Your task to perform on an android device: read, delete, or share a saved page in the chrome app Image 0: 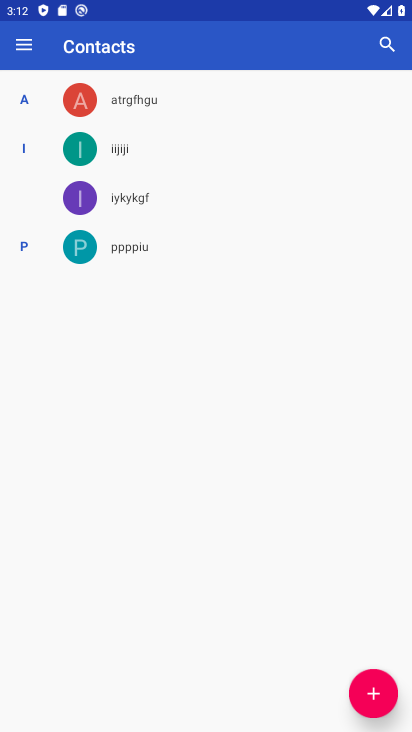
Step 0: press home button
Your task to perform on an android device: read, delete, or share a saved page in the chrome app Image 1: 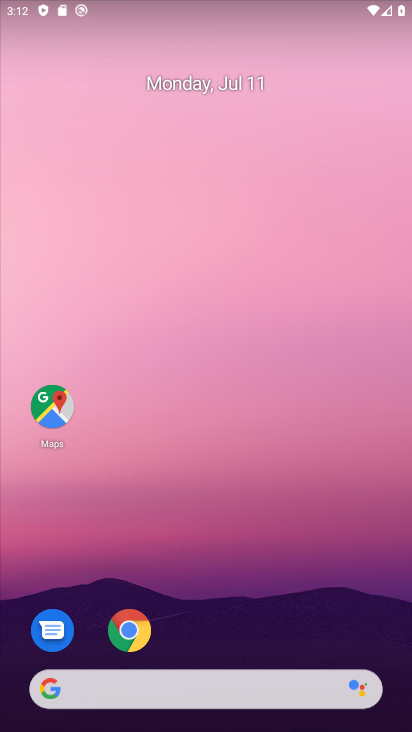
Step 1: drag from (235, 662) to (297, 6)
Your task to perform on an android device: read, delete, or share a saved page in the chrome app Image 2: 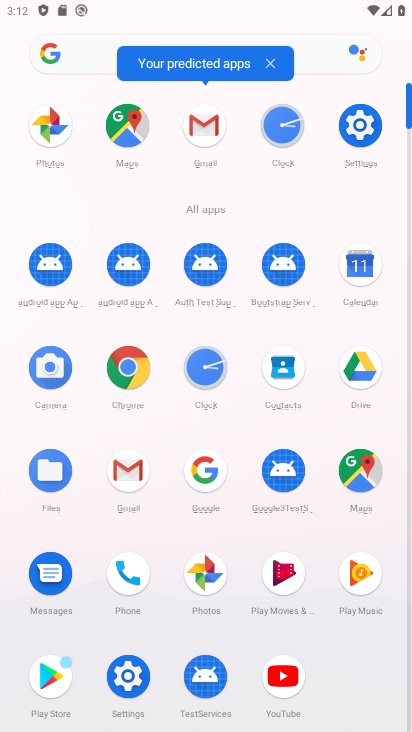
Step 2: click (120, 361)
Your task to perform on an android device: read, delete, or share a saved page in the chrome app Image 3: 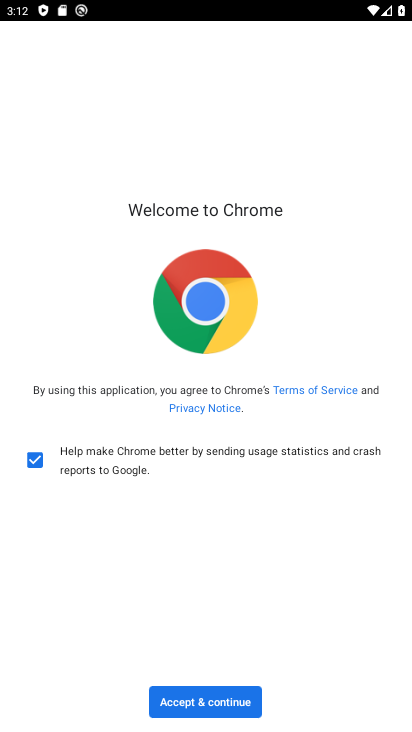
Step 3: click (227, 714)
Your task to perform on an android device: read, delete, or share a saved page in the chrome app Image 4: 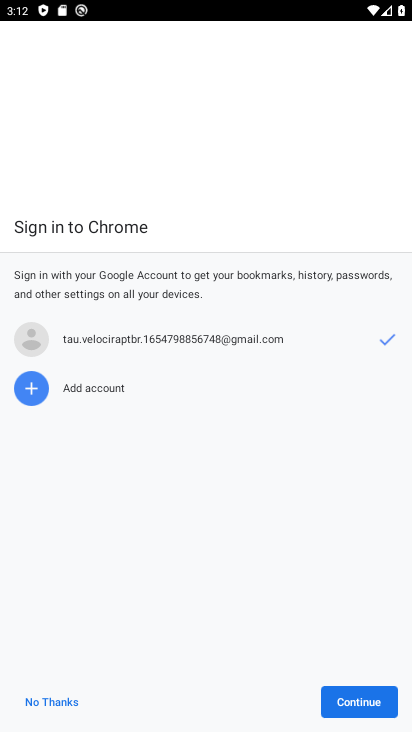
Step 4: click (350, 694)
Your task to perform on an android device: read, delete, or share a saved page in the chrome app Image 5: 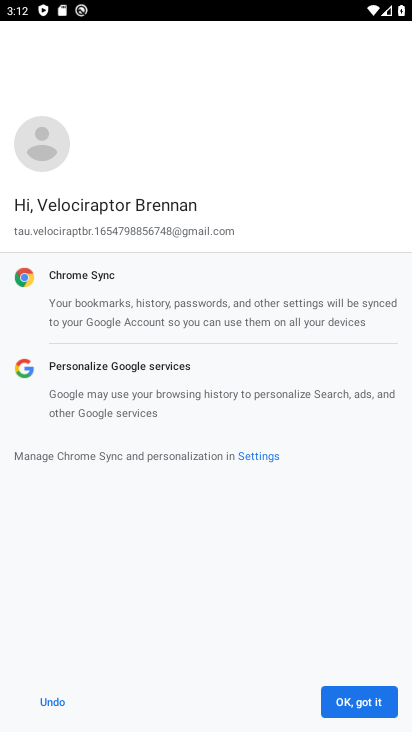
Step 5: click (369, 695)
Your task to perform on an android device: read, delete, or share a saved page in the chrome app Image 6: 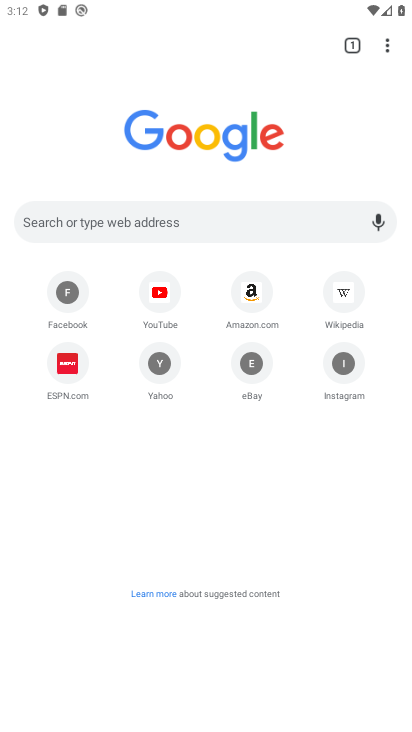
Step 6: drag from (387, 42) to (318, 295)
Your task to perform on an android device: read, delete, or share a saved page in the chrome app Image 7: 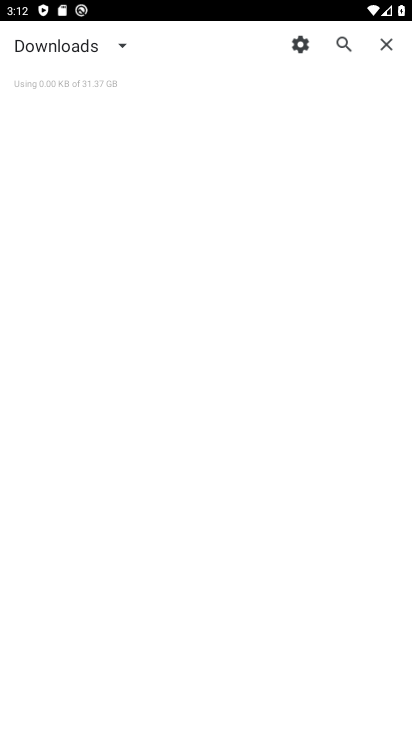
Step 7: click (96, 48)
Your task to perform on an android device: read, delete, or share a saved page in the chrome app Image 8: 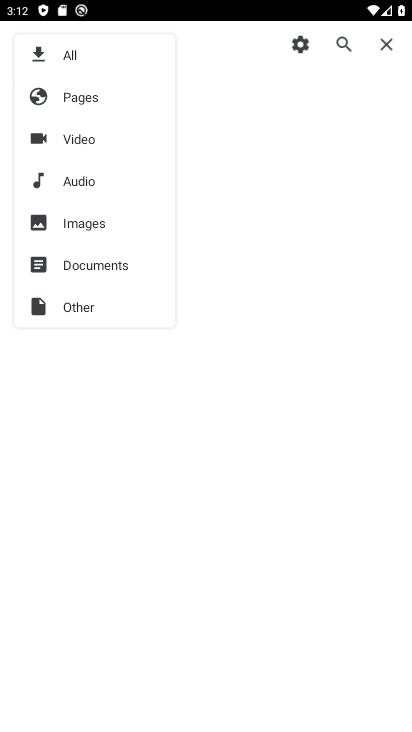
Step 8: click (103, 101)
Your task to perform on an android device: read, delete, or share a saved page in the chrome app Image 9: 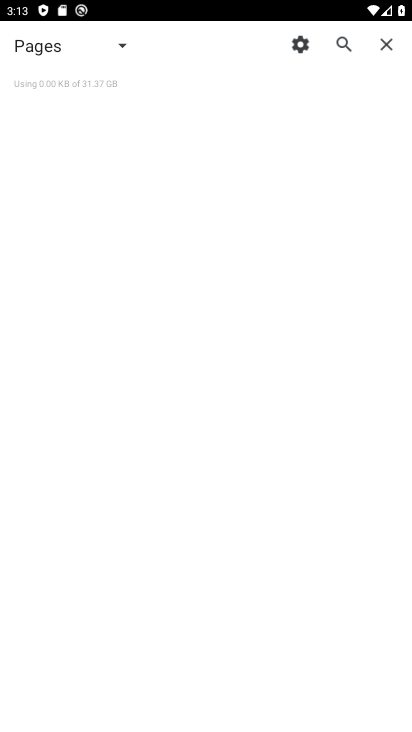
Step 9: task complete